Your task to perform on an android device: check battery use Image 0: 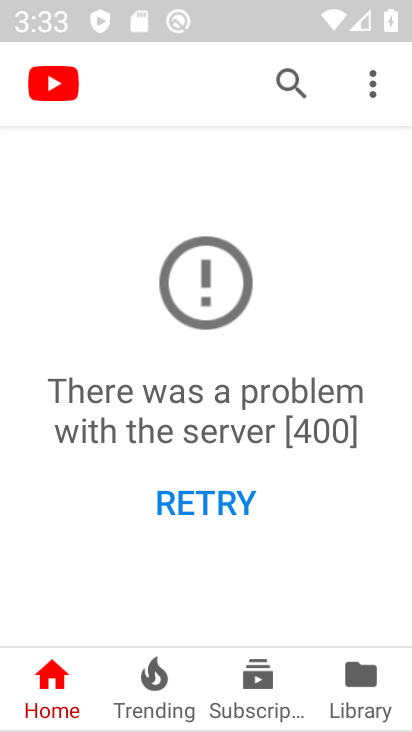
Step 0: press back button
Your task to perform on an android device: check battery use Image 1: 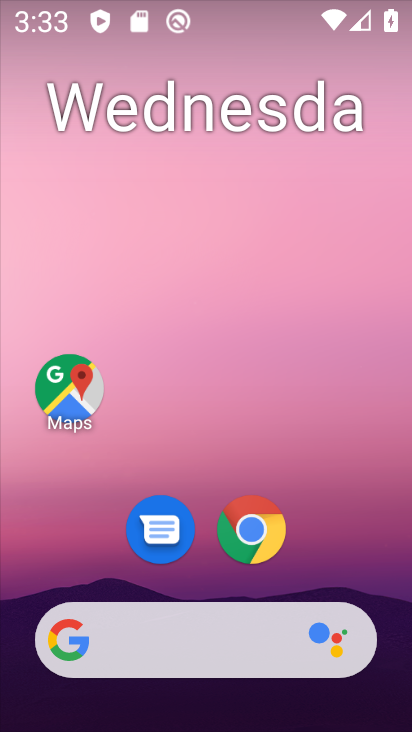
Step 1: drag from (56, 602) to (219, 105)
Your task to perform on an android device: check battery use Image 2: 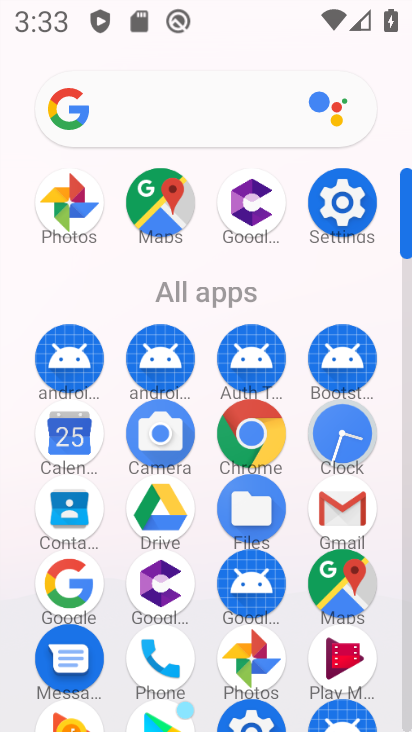
Step 2: click (326, 198)
Your task to perform on an android device: check battery use Image 3: 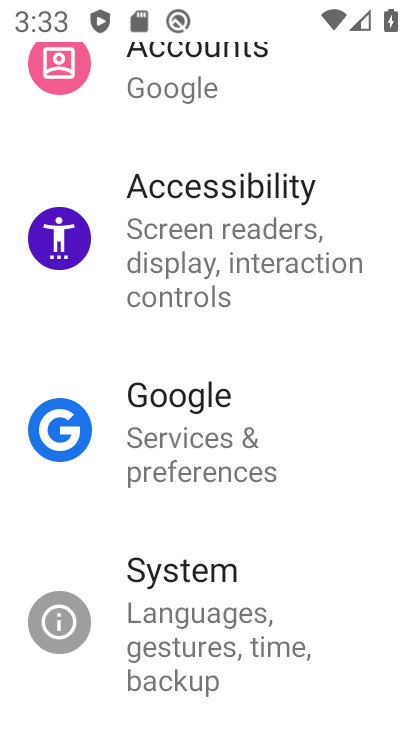
Step 3: drag from (256, 302) to (246, 685)
Your task to perform on an android device: check battery use Image 4: 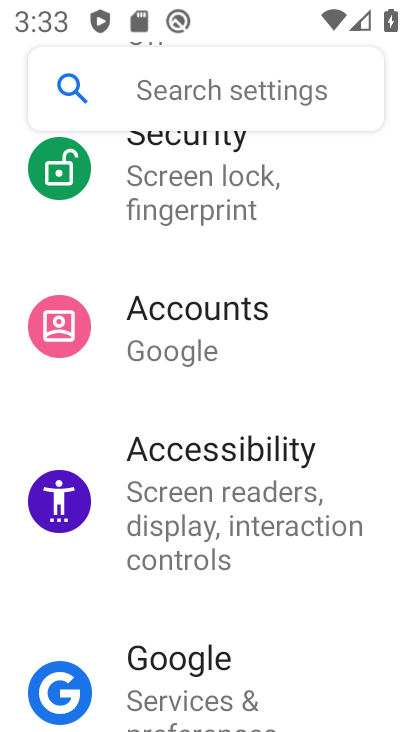
Step 4: drag from (243, 214) to (234, 669)
Your task to perform on an android device: check battery use Image 5: 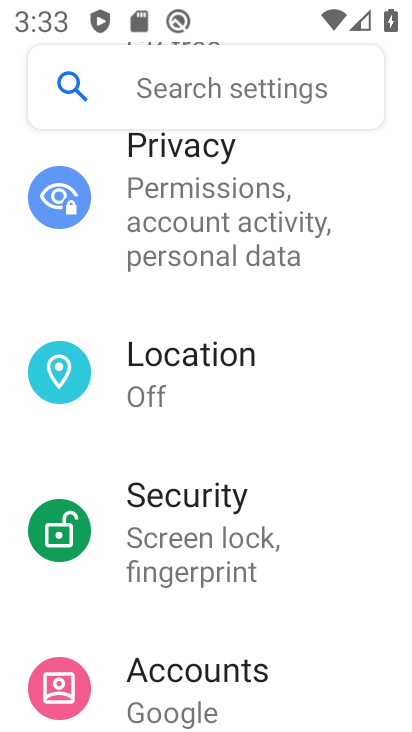
Step 5: drag from (254, 255) to (231, 643)
Your task to perform on an android device: check battery use Image 6: 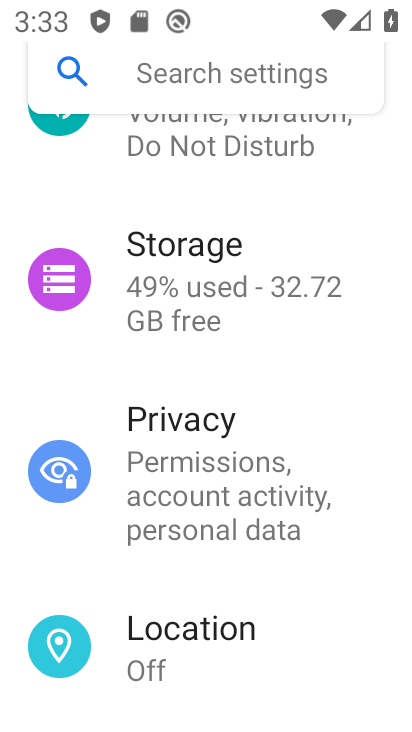
Step 6: drag from (227, 261) to (213, 652)
Your task to perform on an android device: check battery use Image 7: 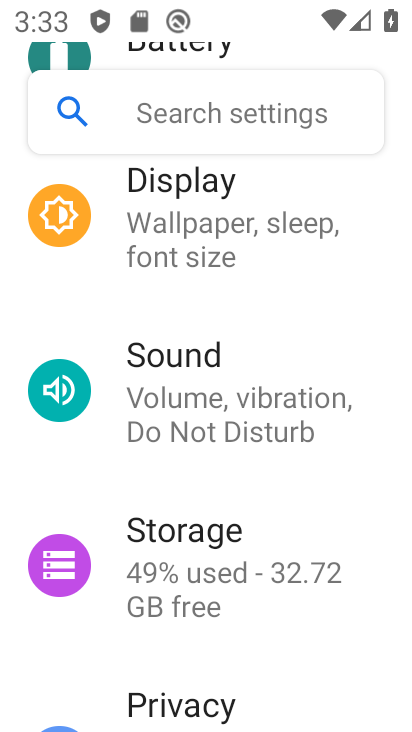
Step 7: drag from (262, 300) to (232, 667)
Your task to perform on an android device: check battery use Image 8: 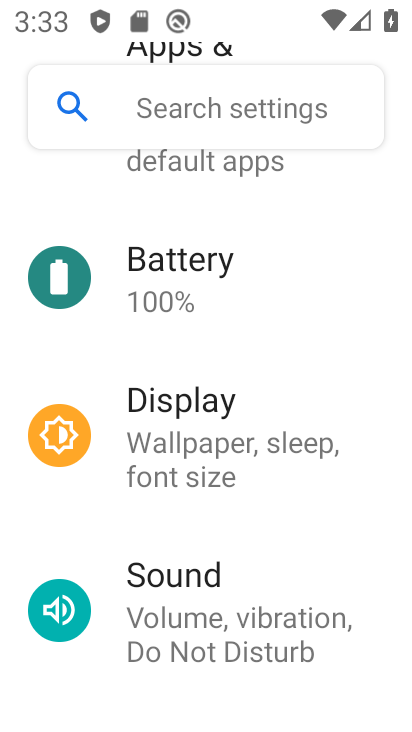
Step 8: drag from (253, 240) to (247, 568)
Your task to perform on an android device: check battery use Image 9: 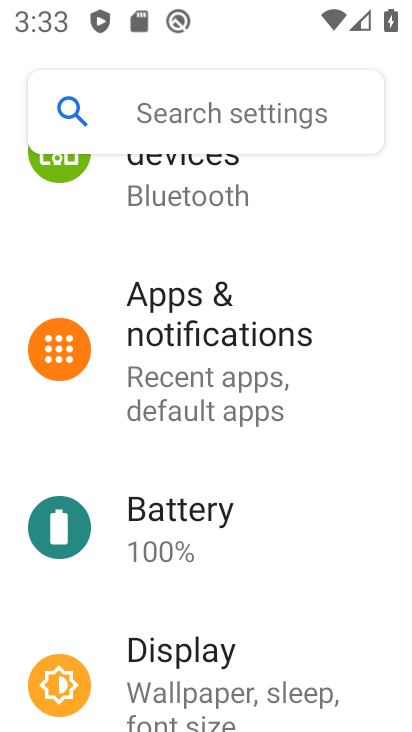
Step 9: click (198, 555)
Your task to perform on an android device: check battery use Image 10: 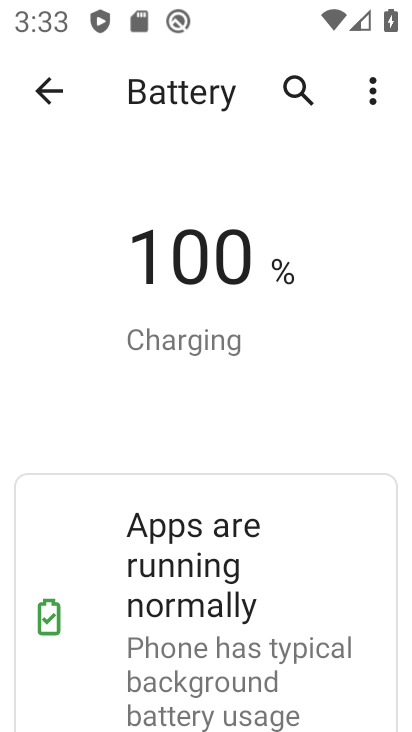
Step 10: click (381, 107)
Your task to perform on an android device: check battery use Image 11: 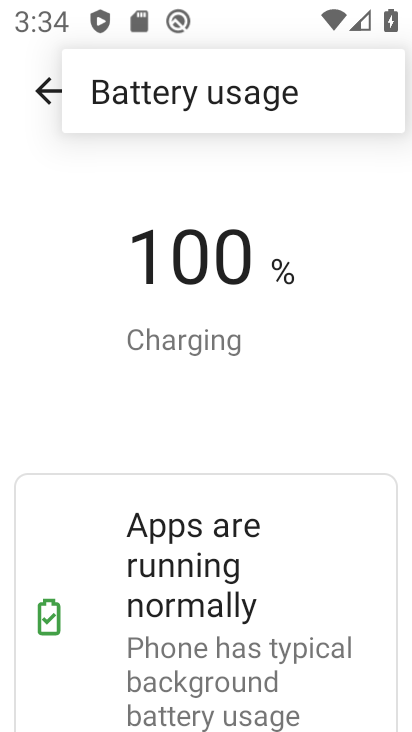
Step 11: click (359, 107)
Your task to perform on an android device: check battery use Image 12: 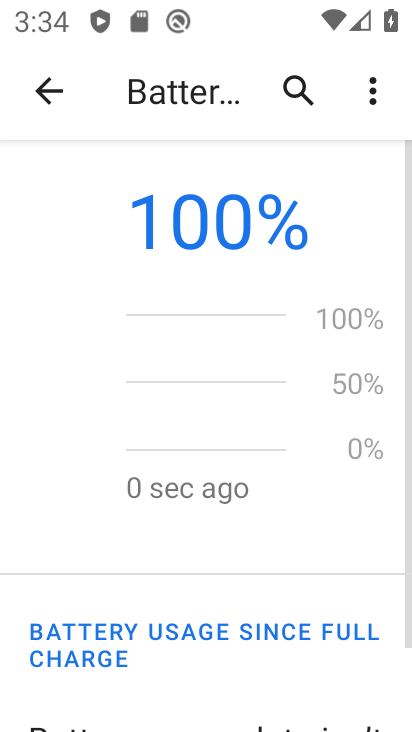
Step 12: task complete